Your task to perform on an android device: toggle notifications settings in the gmail app Image 0: 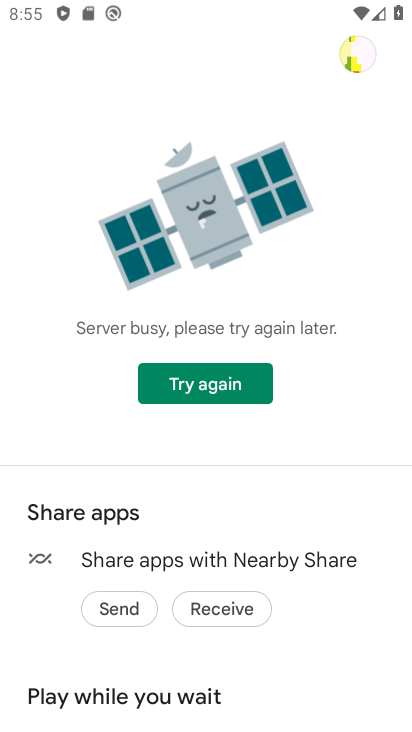
Step 0: press home button
Your task to perform on an android device: toggle notifications settings in the gmail app Image 1: 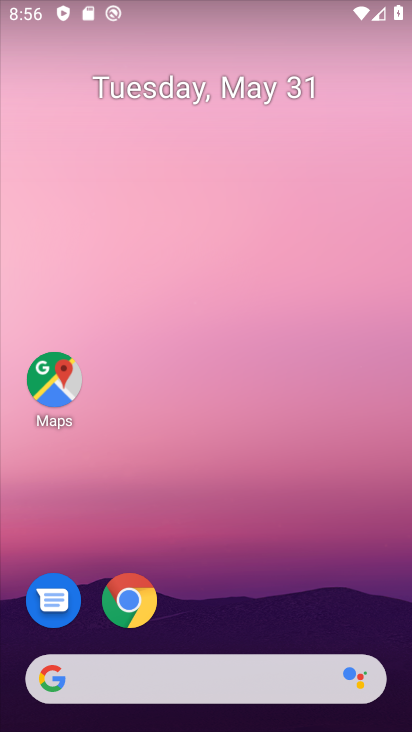
Step 1: drag from (261, 709) to (237, 209)
Your task to perform on an android device: toggle notifications settings in the gmail app Image 2: 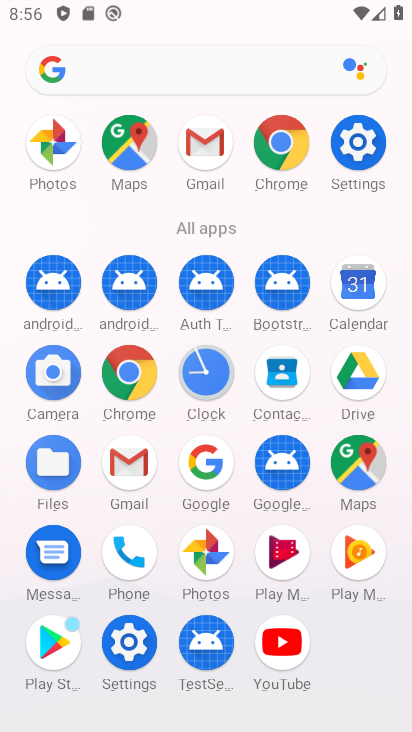
Step 2: click (209, 144)
Your task to perform on an android device: toggle notifications settings in the gmail app Image 3: 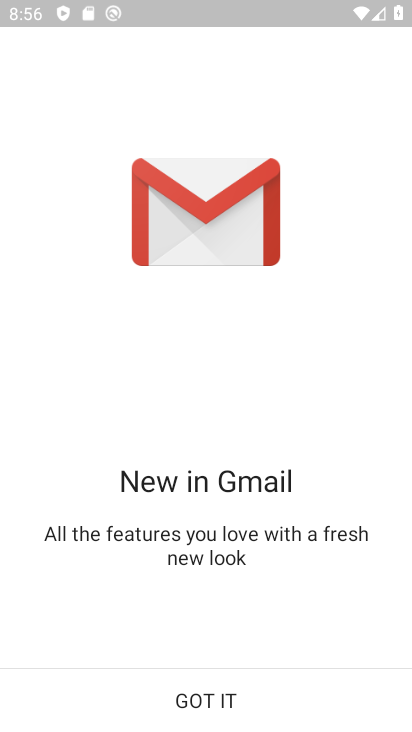
Step 3: click (206, 696)
Your task to perform on an android device: toggle notifications settings in the gmail app Image 4: 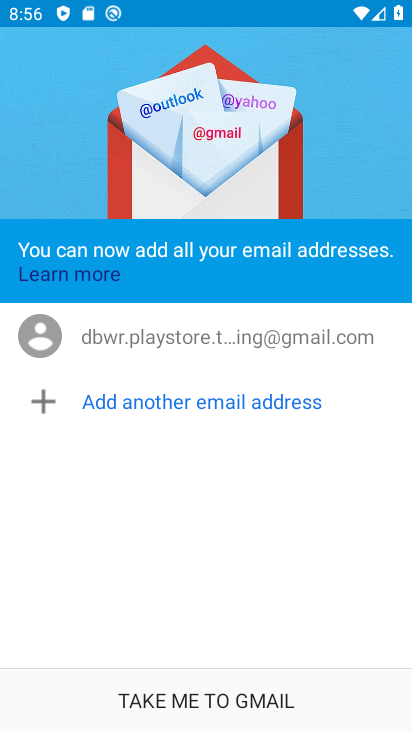
Step 4: click (206, 696)
Your task to perform on an android device: toggle notifications settings in the gmail app Image 5: 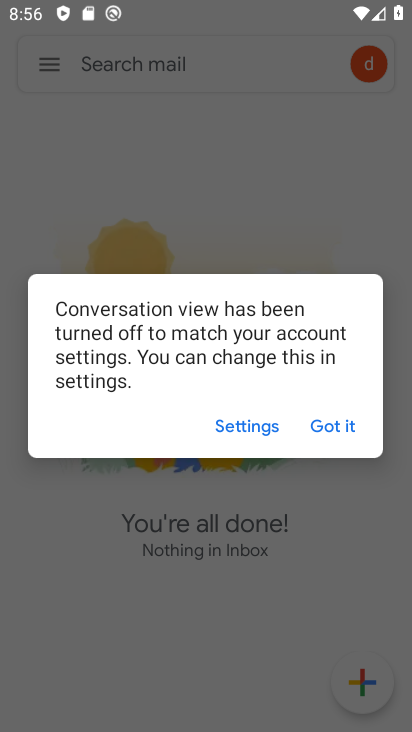
Step 5: click (326, 430)
Your task to perform on an android device: toggle notifications settings in the gmail app Image 6: 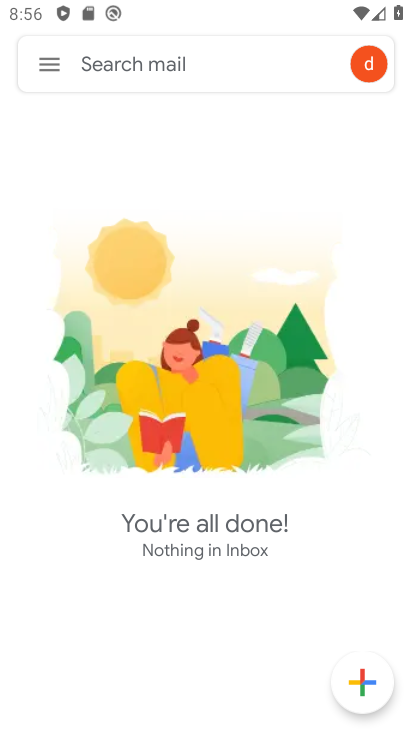
Step 6: click (66, 64)
Your task to perform on an android device: toggle notifications settings in the gmail app Image 7: 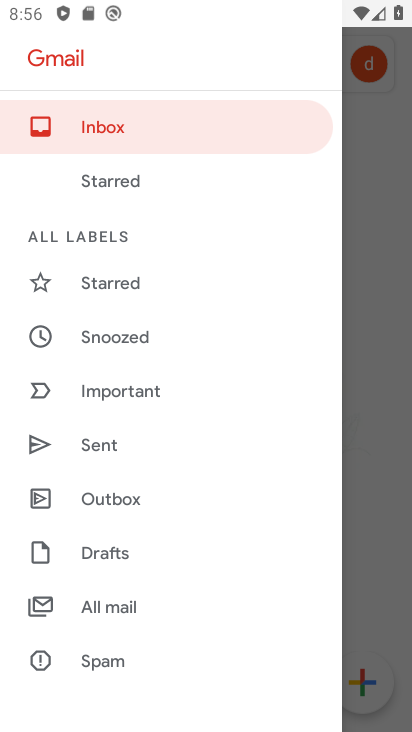
Step 7: drag from (117, 606) to (197, 378)
Your task to perform on an android device: toggle notifications settings in the gmail app Image 8: 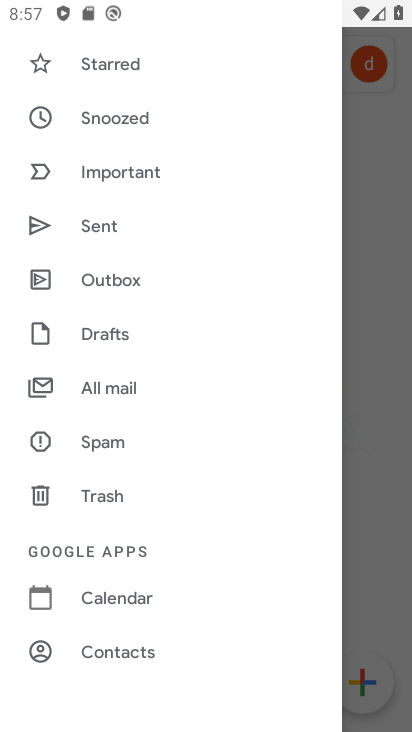
Step 8: drag from (90, 485) to (132, 287)
Your task to perform on an android device: toggle notifications settings in the gmail app Image 9: 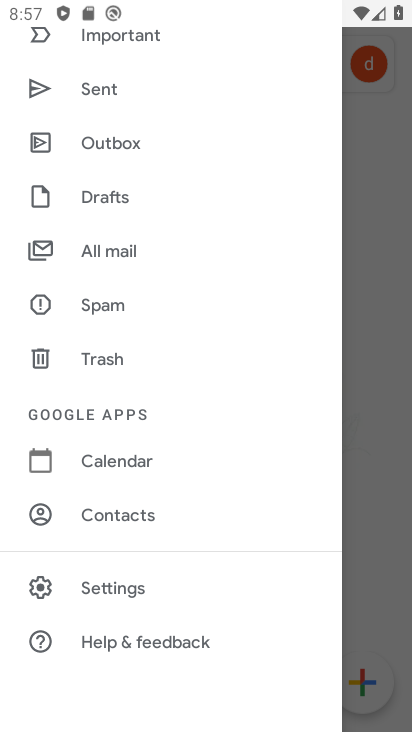
Step 9: click (105, 585)
Your task to perform on an android device: toggle notifications settings in the gmail app Image 10: 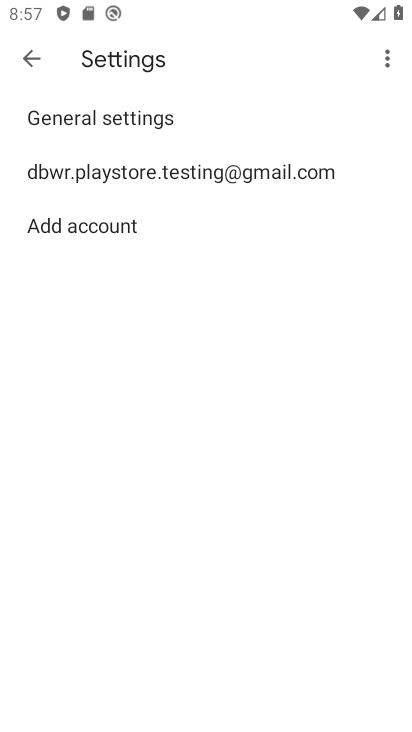
Step 10: click (122, 176)
Your task to perform on an android device: toggle notifications settings in the gmail app Image 11: 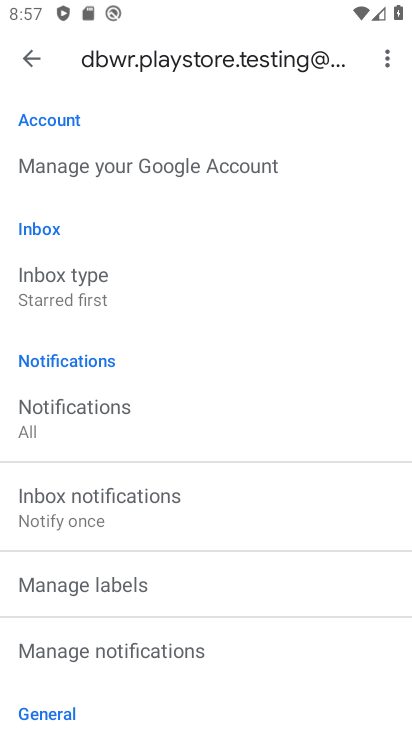
Step 11: click (62, 401)
Your task to perform on an android device: toggle notifications settings in the gmail app Image 12: 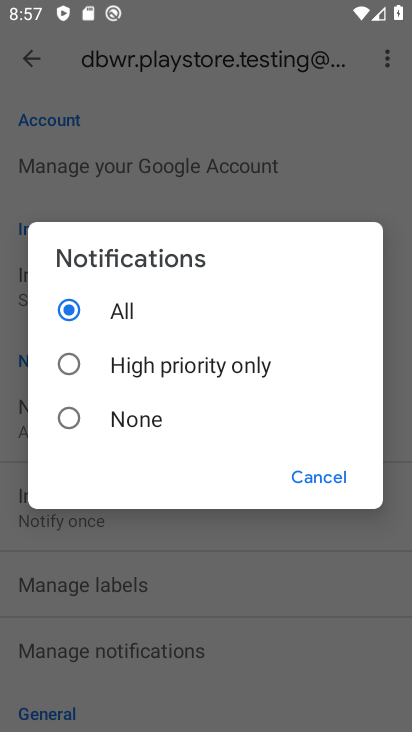
Step 12: task complete